Your task to perform on an android device: Go to calendar. Show me events next week Image 0: 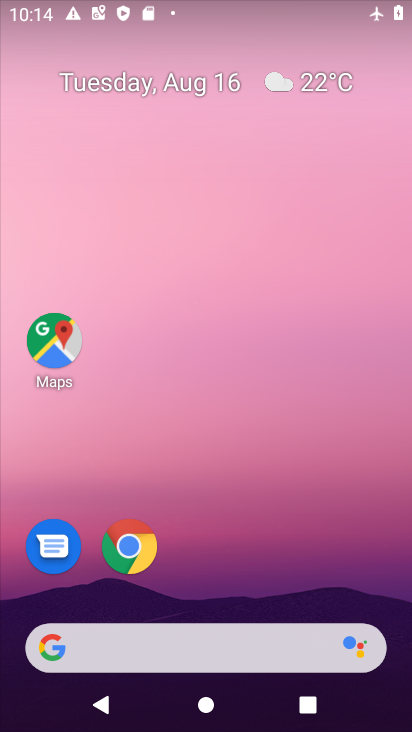
Step 0: drag from (260, 517) to (302, 13)
Your task to perform on an android device: Go to calendar. Show me events next week Image 1: 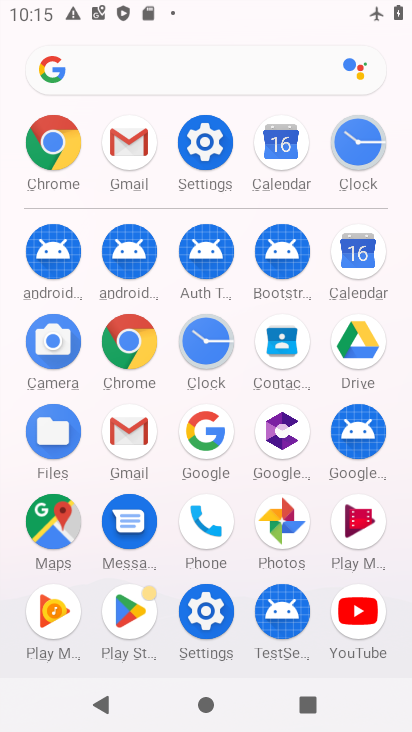
Step 1: click (290, 148)
Your task to perform on an android device: Go to calendar. Show me events next week Image 2: 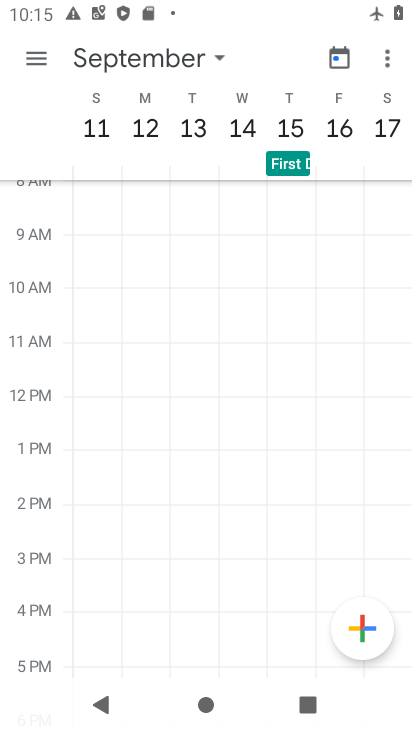
Step 2: task complete